Your task to perform on an android device: When is my next appointment? Image 0: 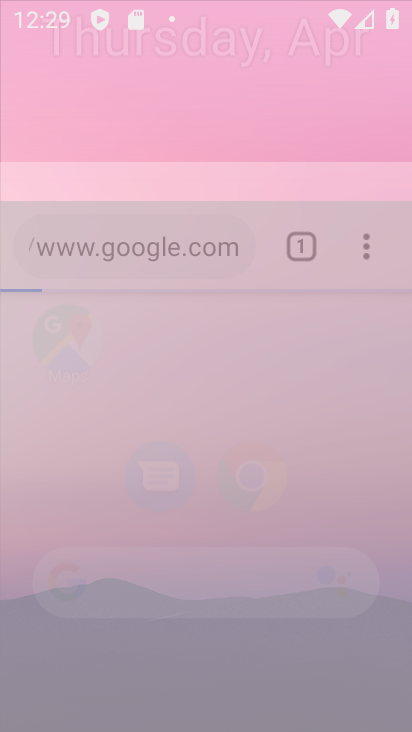
Step 0: drag from (315, 219) to (326, 101)
Your task to perform on an android device: When is my next appointment? Image 1: 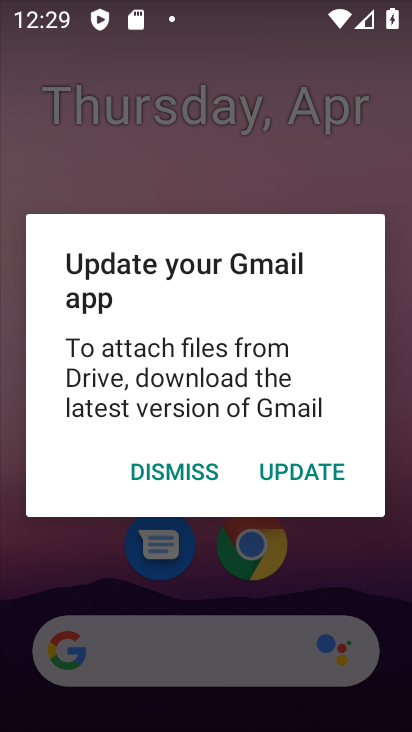
Step 1: press home button
Your task to perform on an android device: When is my next appointment? Image 2: 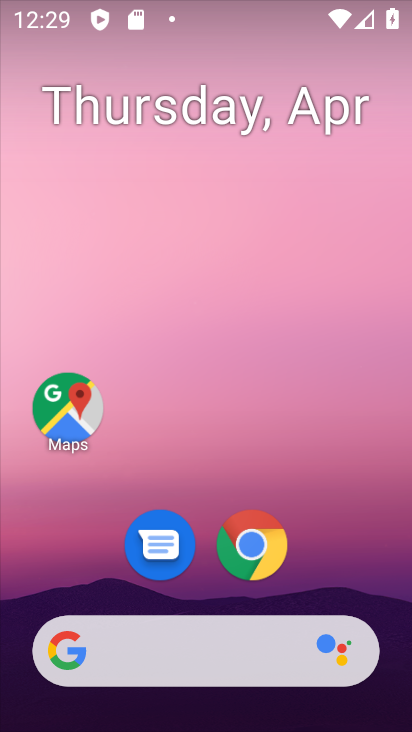
Step 2: click (259, 556)
Your task to perform on an android device: When is my next appointment? Image 3: 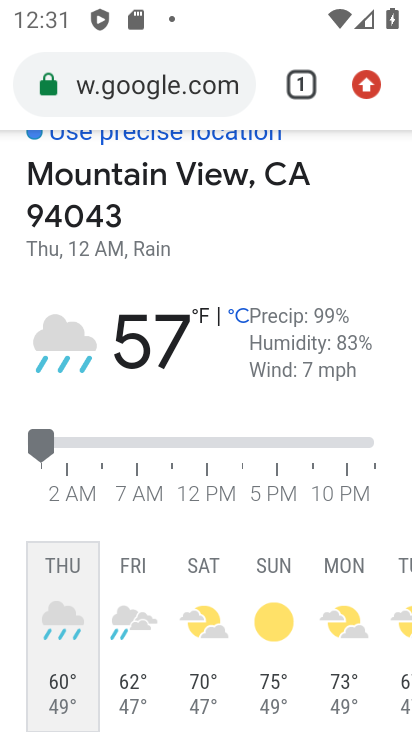
Step 3: press home button
Your task to perform on an android device: When is my next appointment? Image 4: 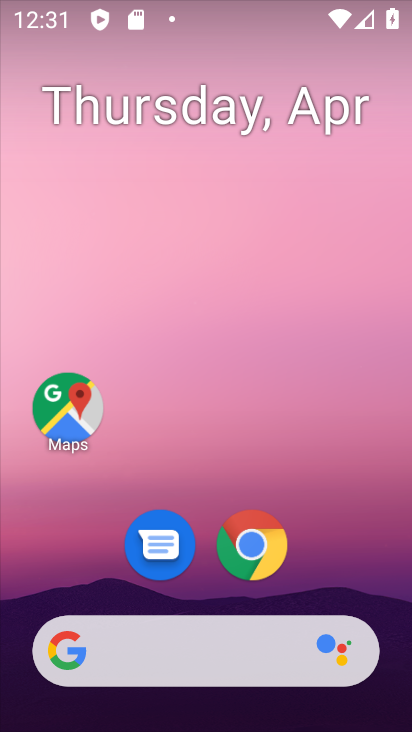
Step 4: drag from (325, 527) to (297, 63)
Your task to perform on an android device: When is my next appointment? Image 5: 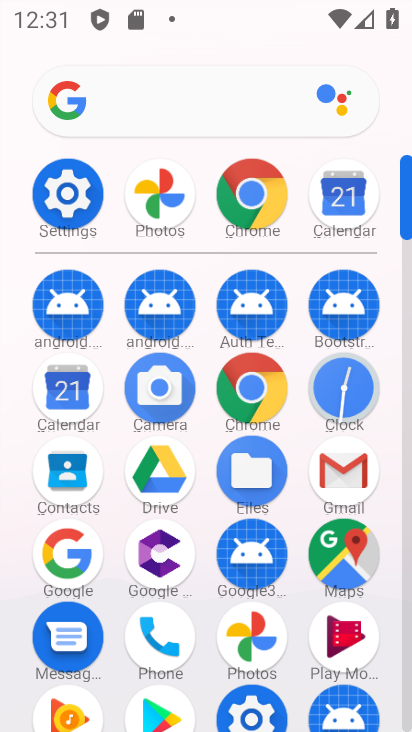
Step 5: click (68, 382)
Your task to perform on an android device: When is my next appointment? Image 6: 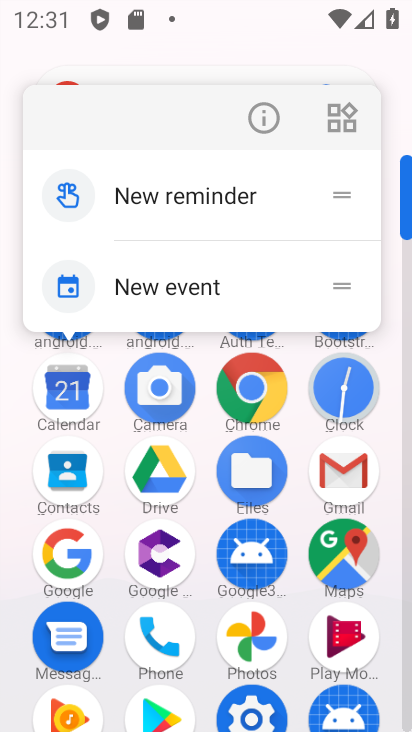
Step 6: click (77, 389)
Your task to perform on an android device: When is my next appointment? Image 7: 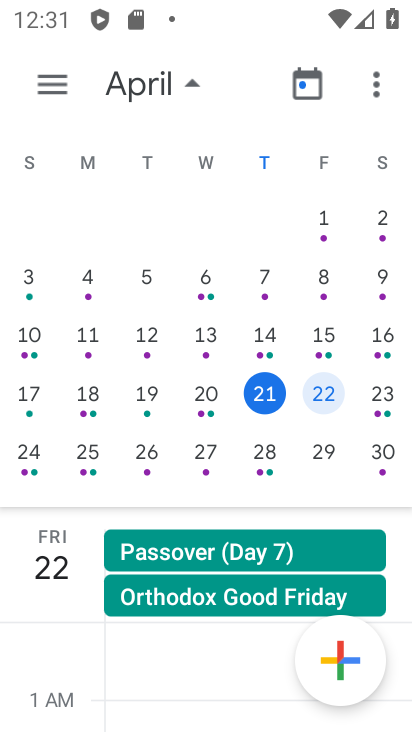
Step 7: click (335, 393)
Your task to perform on an android device: When is my next appointment? Image 8: 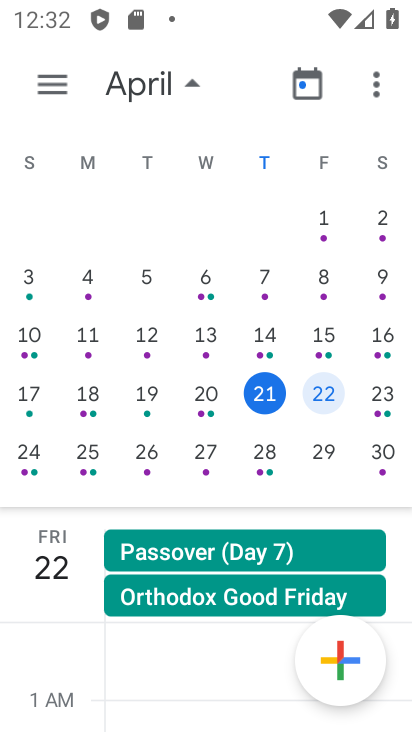
Step 8: task complete